Your task to perform on an android device: turn on showing notifications on the lock screen Image 0: 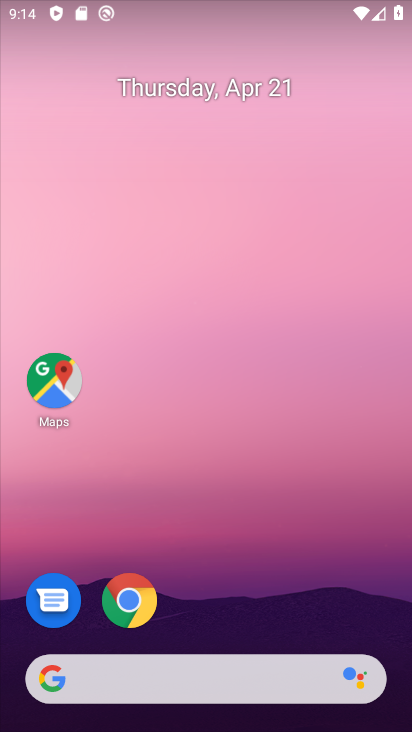
Step 0: drag from (231, 548) to (216, 136)
Your task to perform on an android device: turn on showing notifications on the lock screen Image 1: 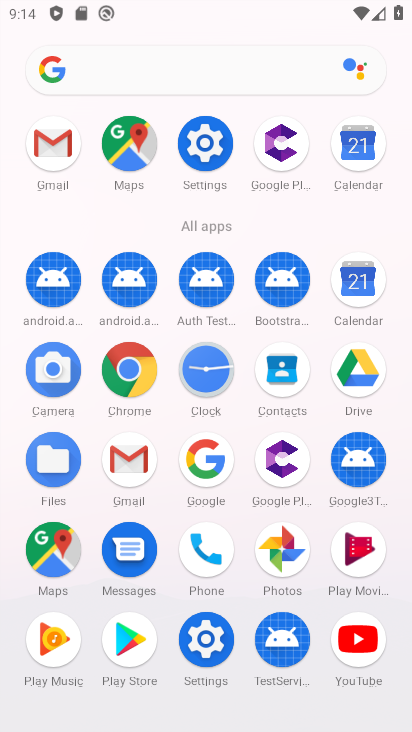
Step 1: click (203, 138)
Your task to perform on an android device: turn on showing notifications on the lock screen Image 2: 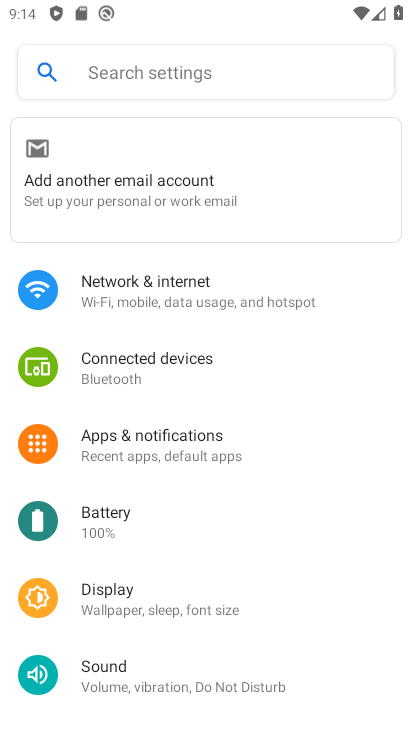
Step 2: click (159, 432)
Your task to perform on an android device: turn on showing notifications on the lock screen Image 3: 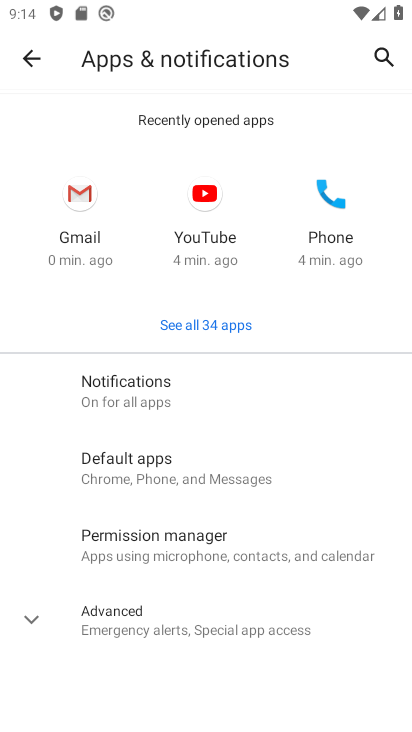
Step 3: click (139, 410)
Your task to perform on an android device: turn on showing notifications on the lock screen Image 4: 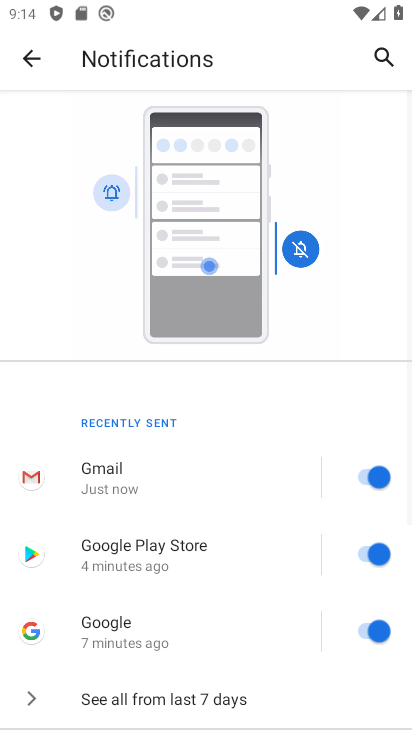
Step 4: drag from (197, 624) to (237, 243)
Your task to perform on an android device: turn on showing notifications on the lock screen Image 5: 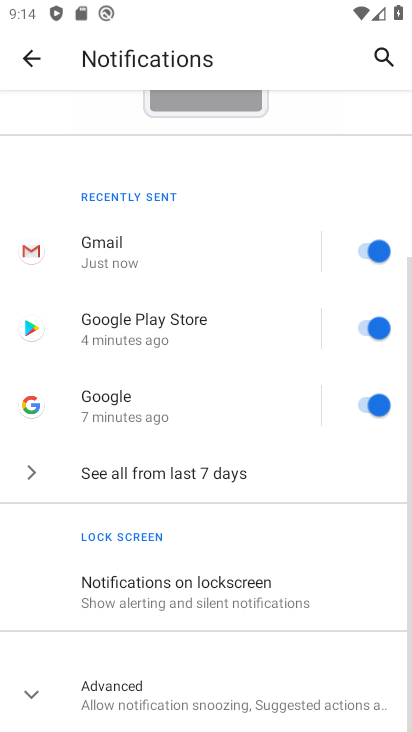
Step 5: click (83, 592)
Your task to perform on an android device: turn on showing notifications on the lock screen Image 6: 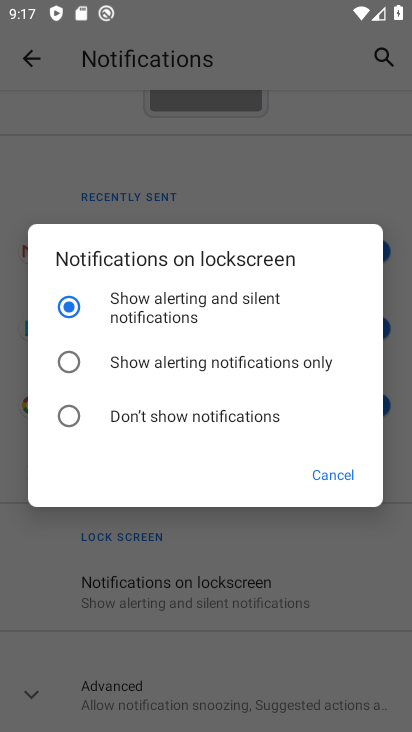
Step 6: task complete